Your task to perform on an android device: Go to notification settings Image 0: 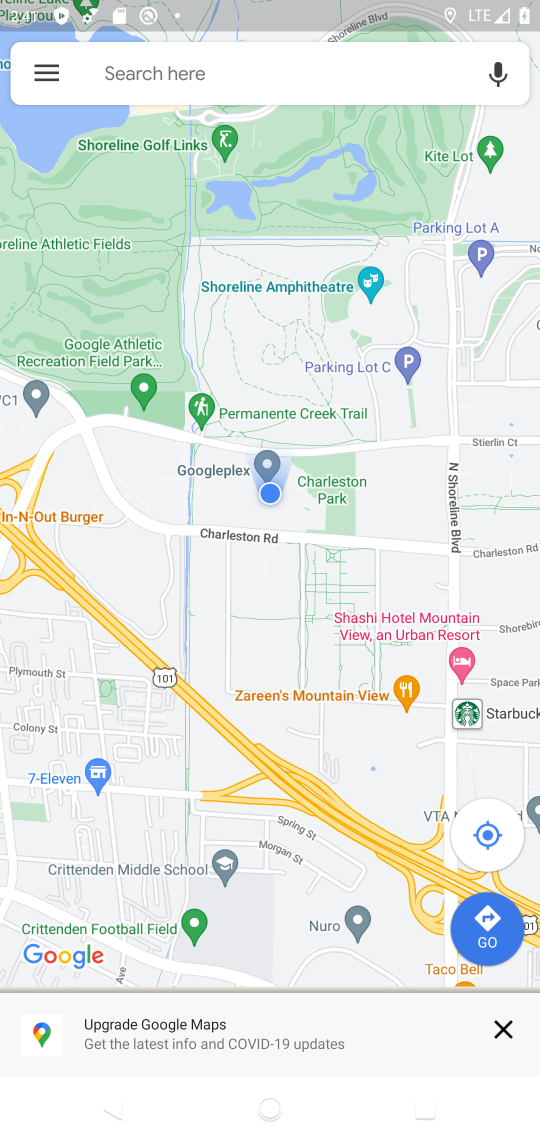
Step 0: press home button
Your task to perform on an android device: Go to notification settings Image 1: 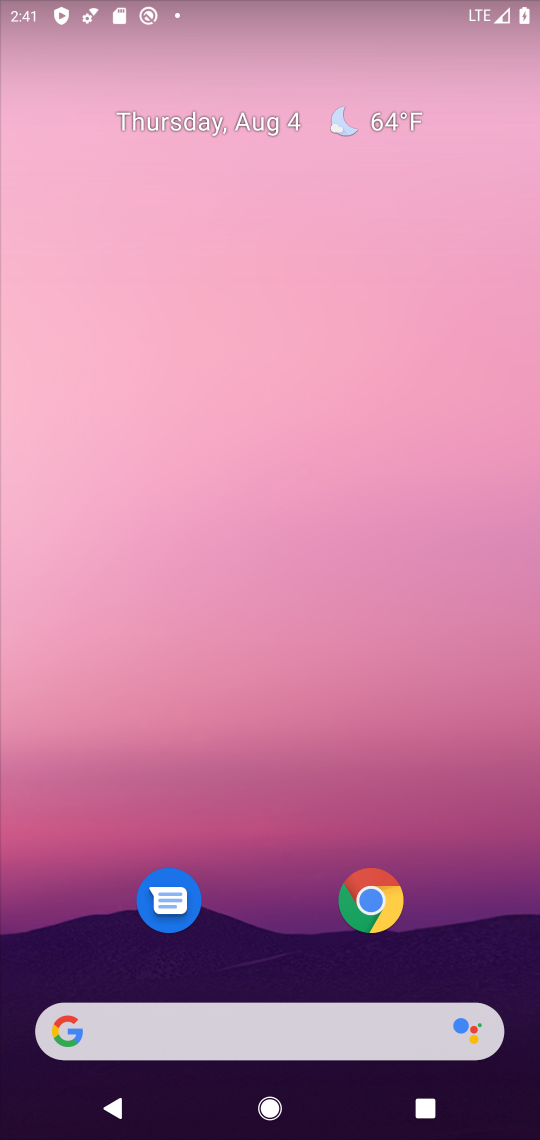
Step 1: drag from (506, 928) to (264, 108)
Your task to perform on an android device: Go to notification settings Image 2: 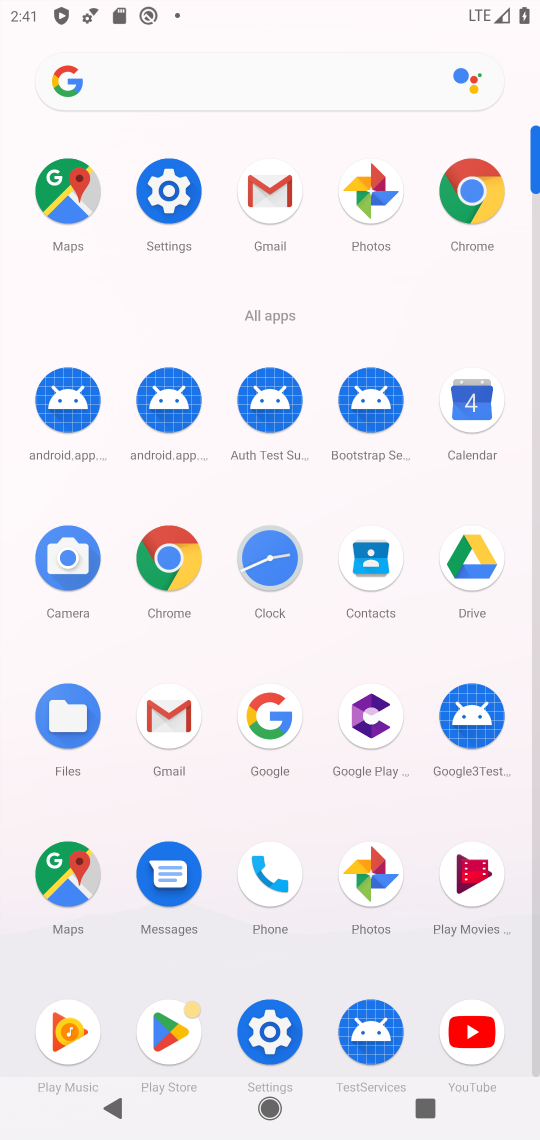
Step 2: click (182, 200)
Your task to perform on an android device: Go to notification settings Image 3: 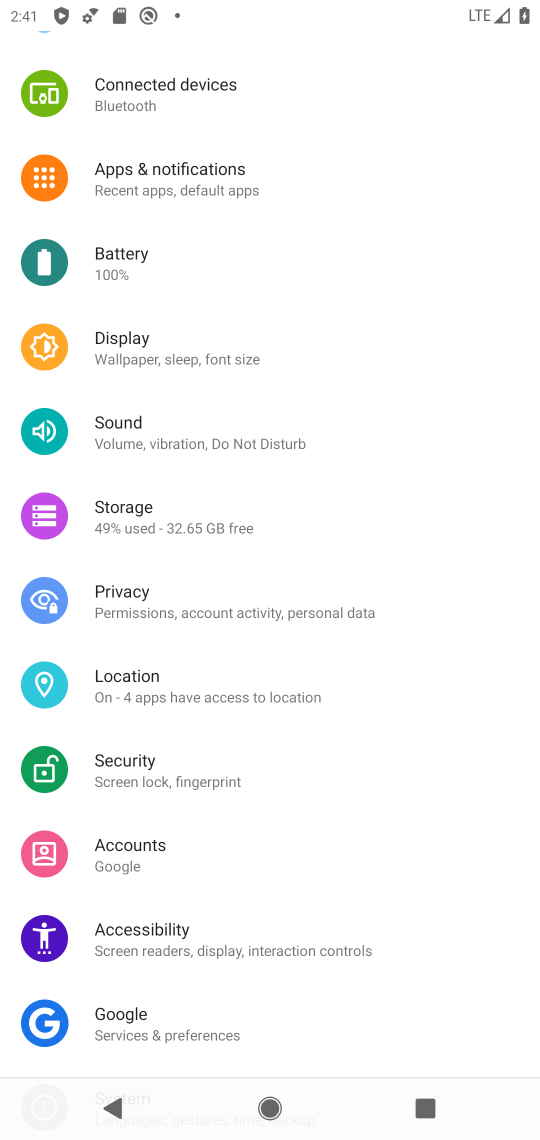
Step 3: click (209, 188)
Your task to perform on an android device: Go to notification settings Image 4: 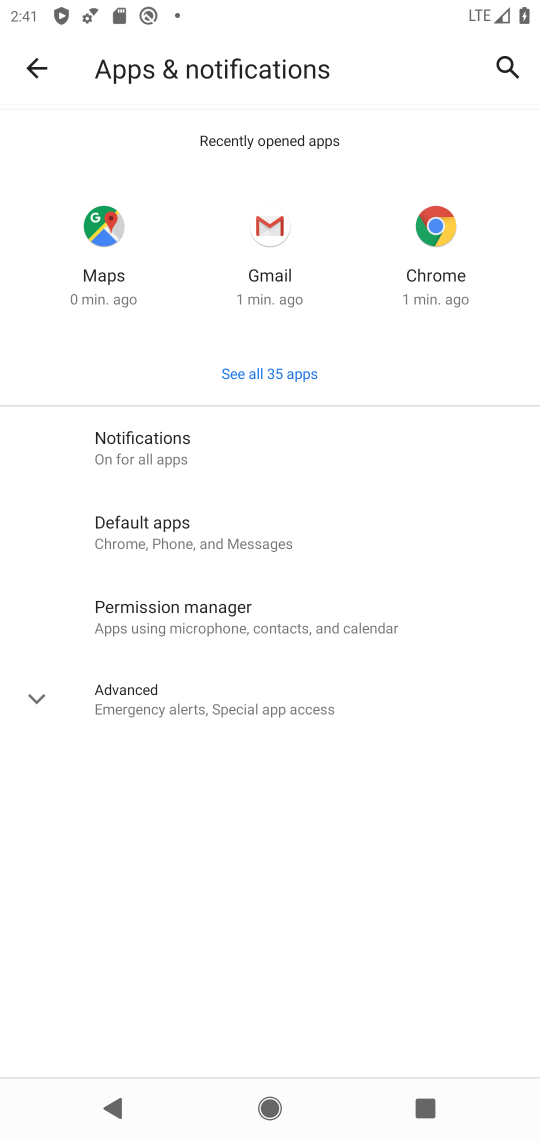
Step 4: click (160, 459)
Your task to perform on an android device: Go to notification settings Image 5: 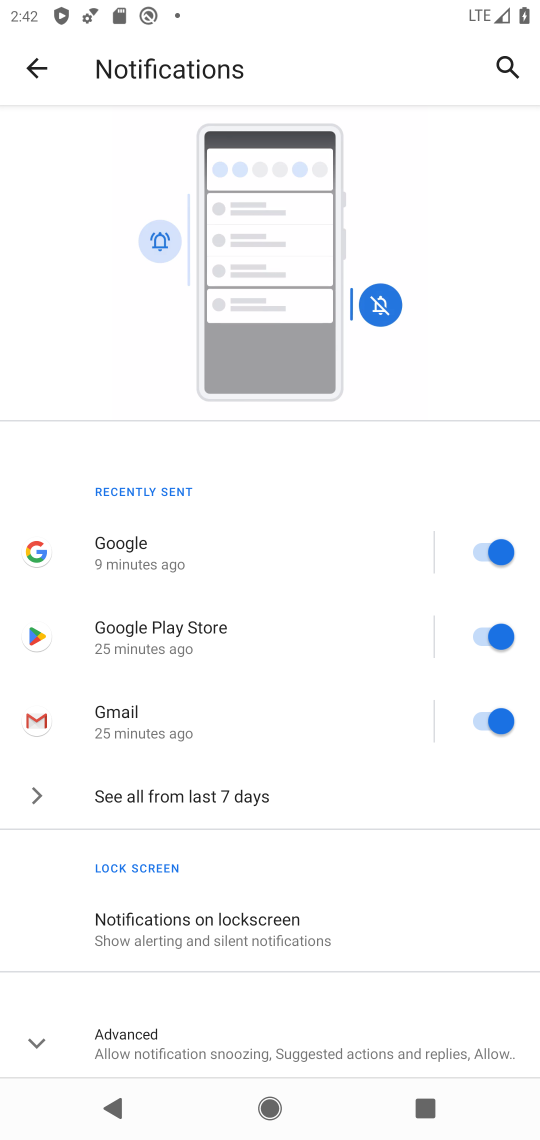
Step 5: task complete